Your task to perform on an android device: Go to Amazon Image 0: 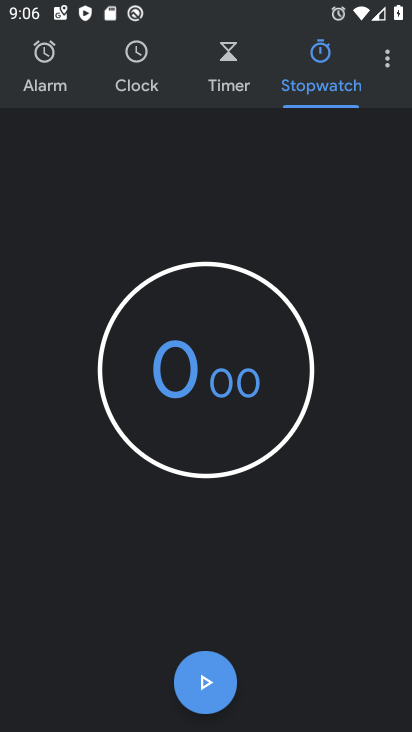
Step 0: press home button
Your task to perform on an android device: Go to Amazon Image 1: 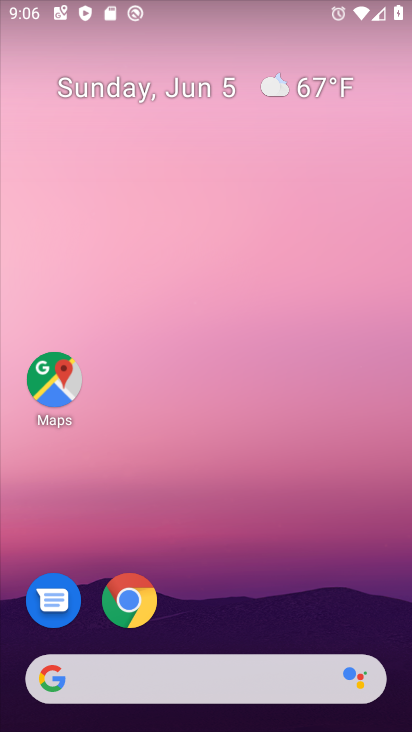
Step 1: drag from (407, 638) to (205, 56)
Your task to perform on an android device: Go to Amazon Image 2: 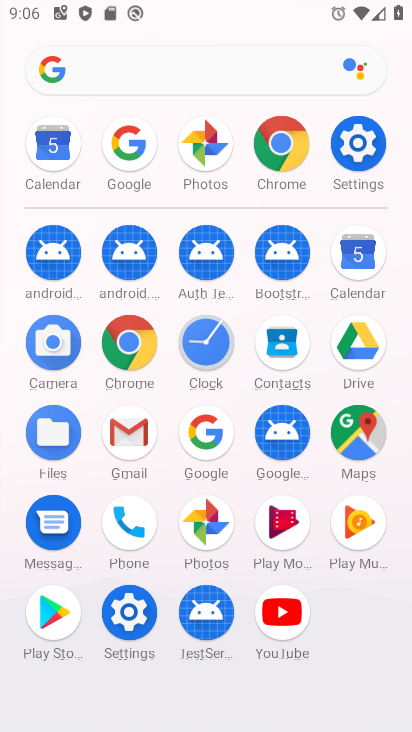
Step 2: click (215, 434)
Your task to perform on an android device: Go to Amazon Image 3: 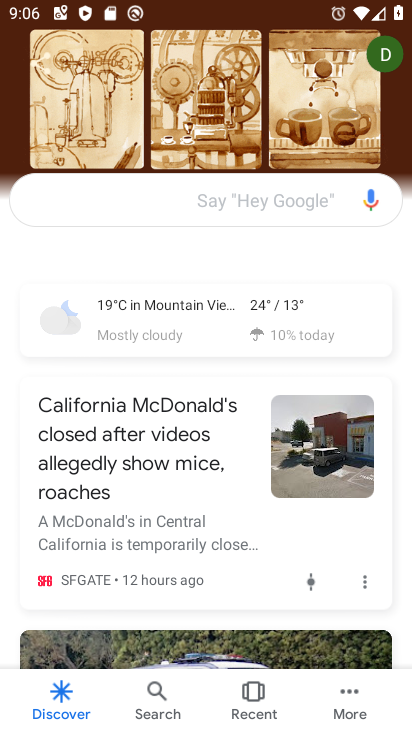
Step 3: click (162, 210)
Your task to perform on an android device: Go to Amazon Image 4: 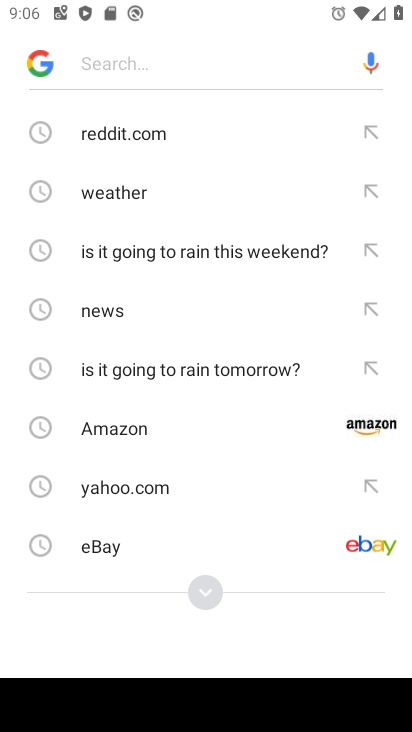
Step 4: click (133, 430)
Your task to perform on an android device: Go to Amazon Image 5: 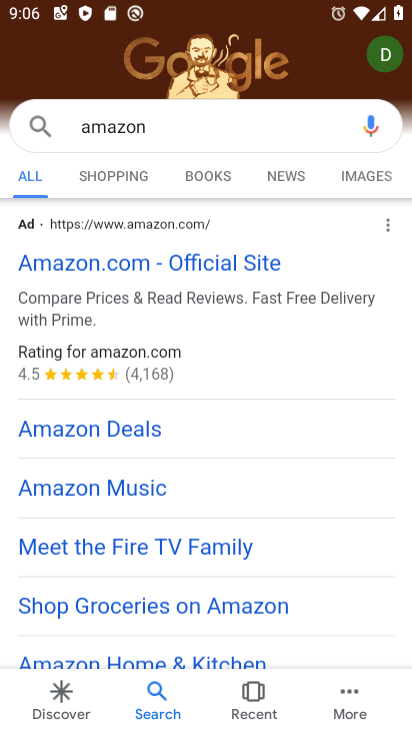
Step 5: task complete